Your task to perform on an android device: Search for flights from NYC to Barcelona Image 0: 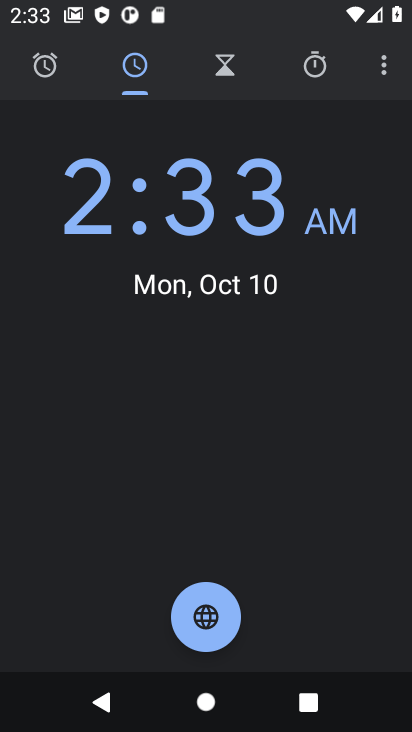
Step 0: press home button
Your task to perform on an android device: Search for flights from NYC to Barcelona Image 1: 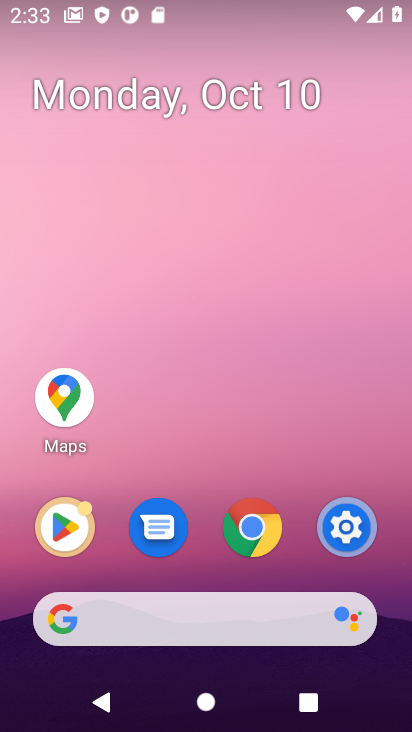
Step 1: click (235, 630)
Your task to perform on an android device: Search for flights from NYC to Barcelona Image 2: 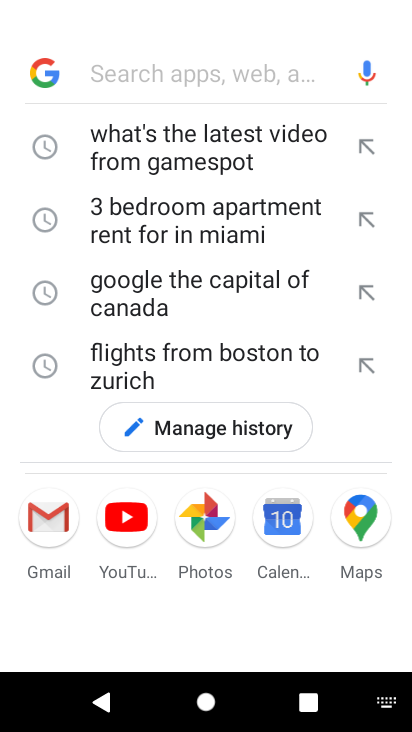
Step 2: type "flights from NYC to Barcelona"
Your task to perform on an android device: Search for flights from NYC to Barcelona Image 3: 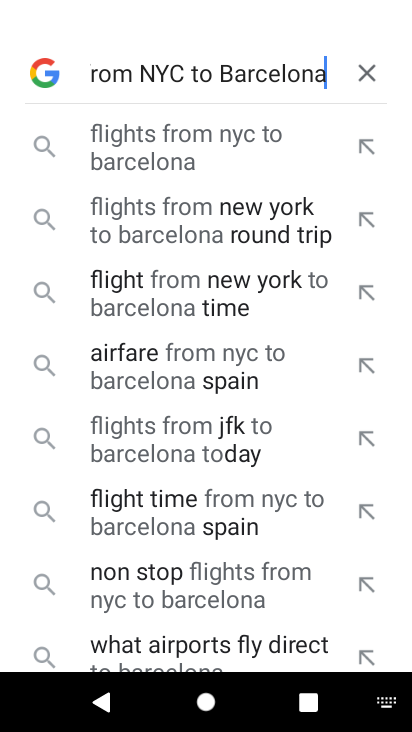
Step 3: press enter
Your task to perform on an android device: Search for flights from NYC to Barcelona Image 4: 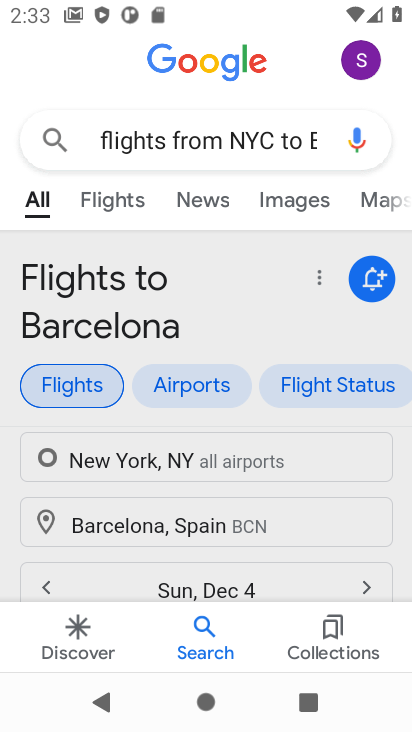
Step 4: drag from (296, 507) to (297, 386)
Your task to perform on an android device: Search for flights from NYC to Barcelona Image 5: 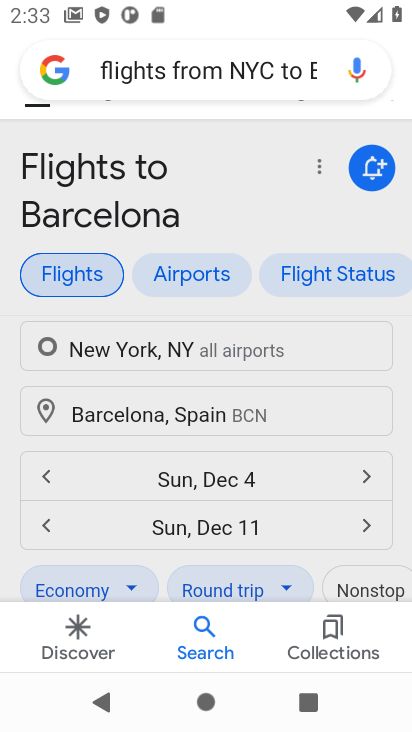
Step 5: drag from (290, 536) to (298, 289)
Your task to perform on an android device: Search for flights from NYC to Barcelona Image 6: 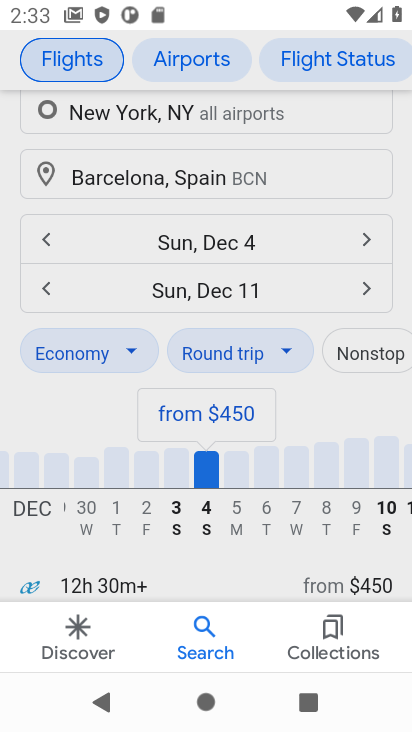
Step 6: drag from (261, 531) to (285, 305)
Your task to perform on an android device: Search for flights from NYC to Barcelona Image 7: 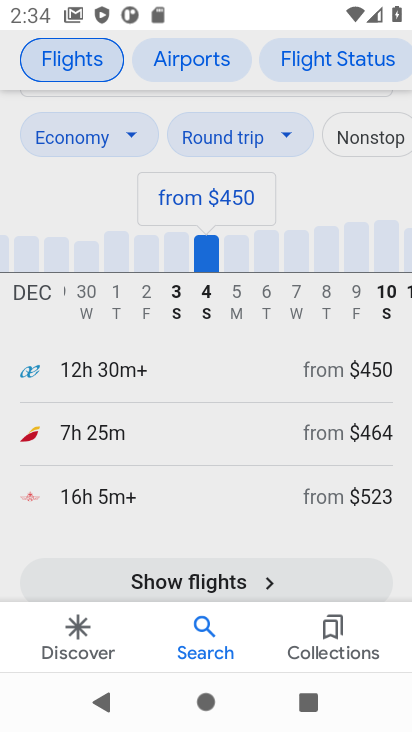
Step 7: drag from (238, 527) to (237, 344)
Your task to perform on an android device: Search for flights from NYC to Barcelona Image 8: 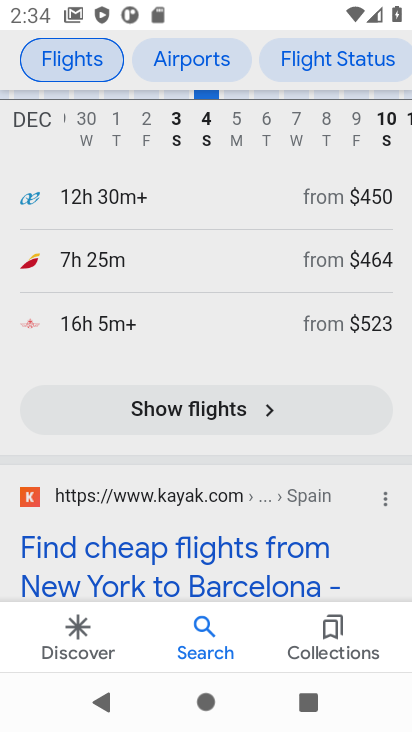
Step 8: click (232, 407)
Your task to perform on an android device: Search for flights from NYC to Barcelona Image 9: 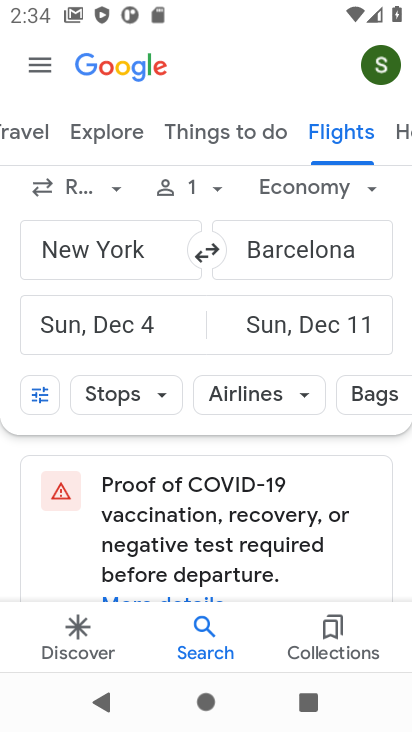
Step 9: task complete